Your task to perform on an android device: toggle priority inbox in the gmail app Image 0: 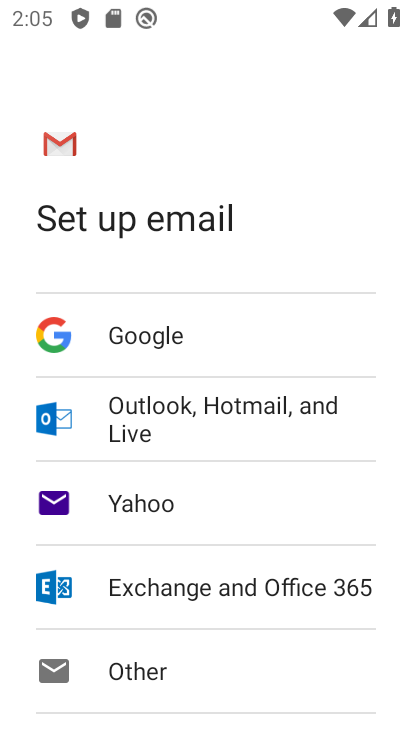
Step 0: press back button
Your task to perform on an android device: toggle priority inbox in the gmail app Image 1: 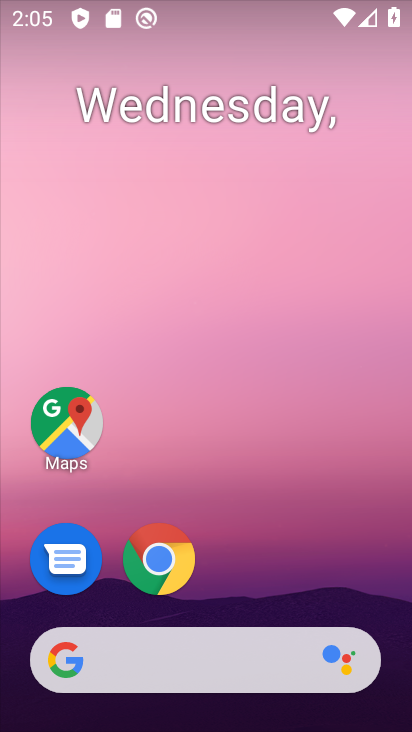
Step 1: drag from (259, 542) to (259, 82)
Your task to perform on an android device: toggle priority inbox in the gmail app Image 2: 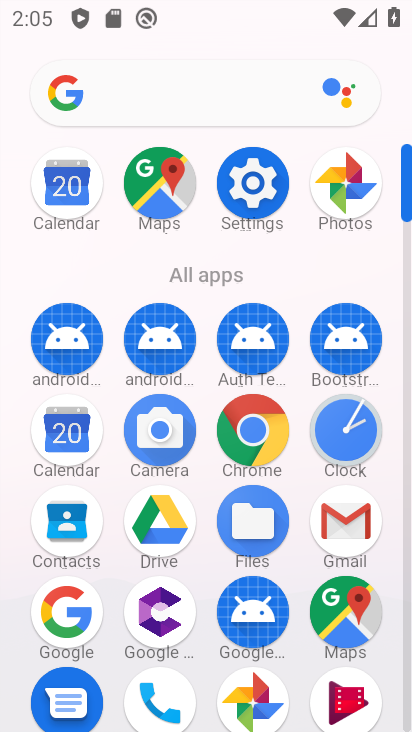
Step 2: click (332, 496)
Your task to perform on an android device: toggle priority inbox in the gmail app Image 3: 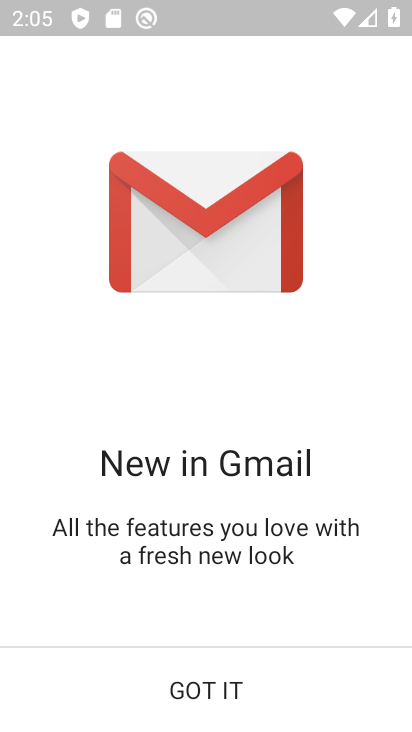
Step 3: click (200, 683)
Your task to perform on an android device: toggle priority inbox in the gmail app Image 4: 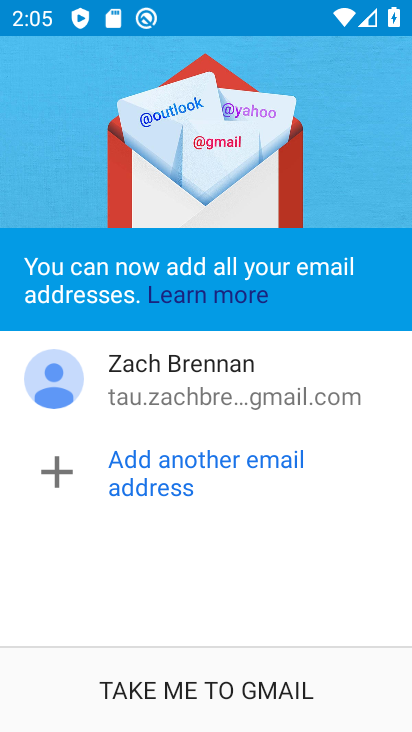
Step 4: click (192, 687)
Your task to perform on an android device: toggle priority inbox in the gmail app Image 5: 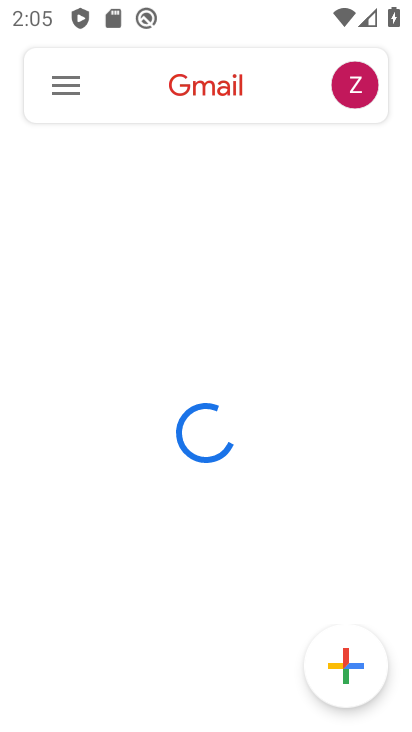
Step 5: click (64, 87)
Your task to perform on an android device: toggle priority inbox in the gmail app Image 6: 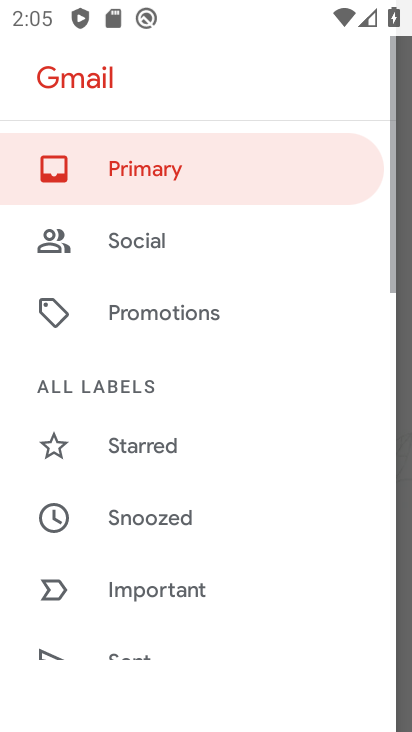
Step 6: drag from (142, 663) to (241, 104)
Your task to perform on an android device: toggle priority inbox in the gmail app Image 7: 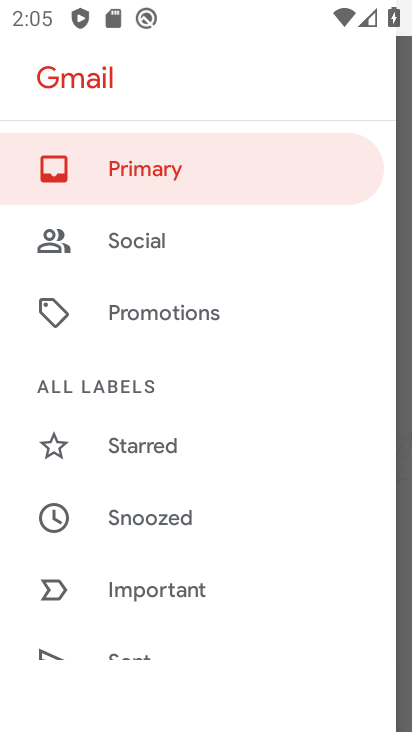
Step 7: drag from (214, 631) to (214, 39)
Your task to perform on an android device: toggle priority inbox in the gmail app Image 8: 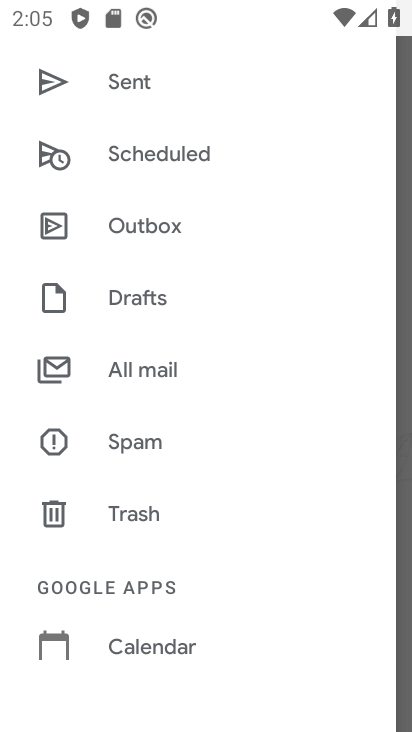
Step 8: drag from (151, 636) to (209, 52)
Your task to perform on an android device: toggle priority inbox in the gmail app Image 9: 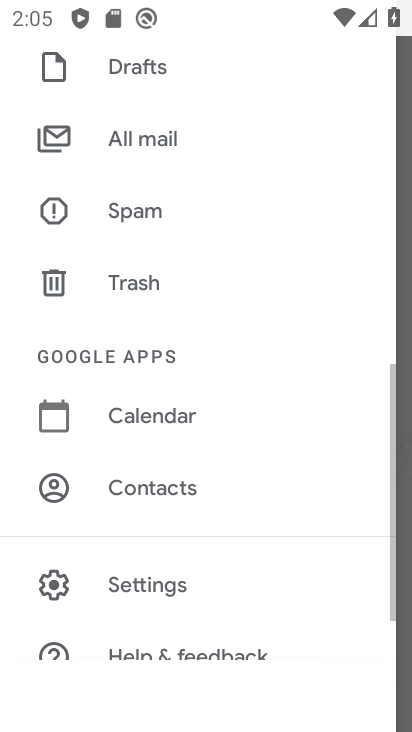
Step 9: click (167, 541)
Your task to perform on an android device: toggle priority inbox in the gmail app Image 10: 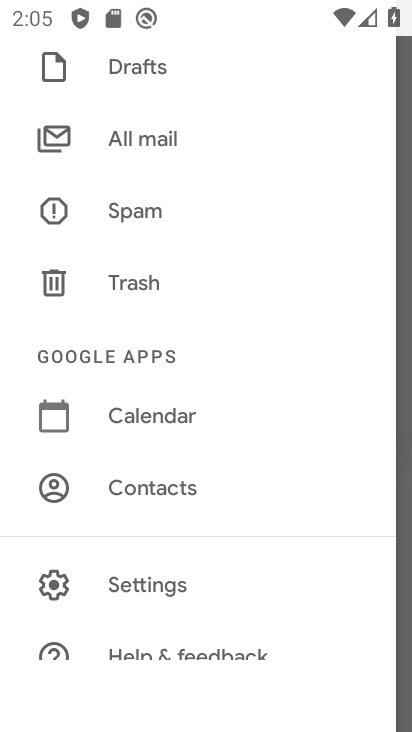
Step 10: click (128, 587)
Your task to perform on an android device: toggle priority inbox in the gmail app Image 11: 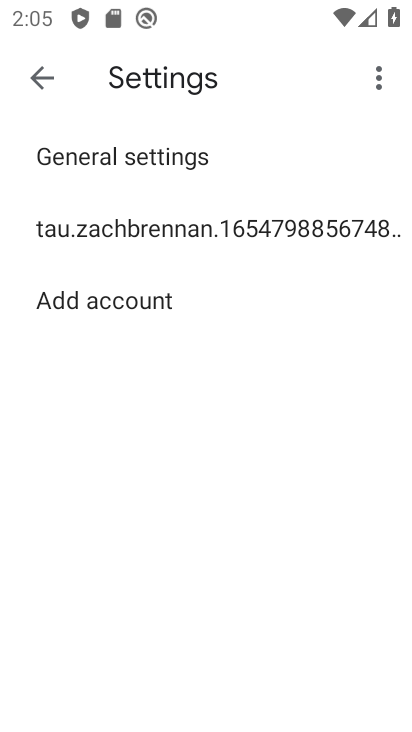
Step 11: click (156, 219)
Your task to perform on an android device: toggle priority inbox in the gmail app Image 12: 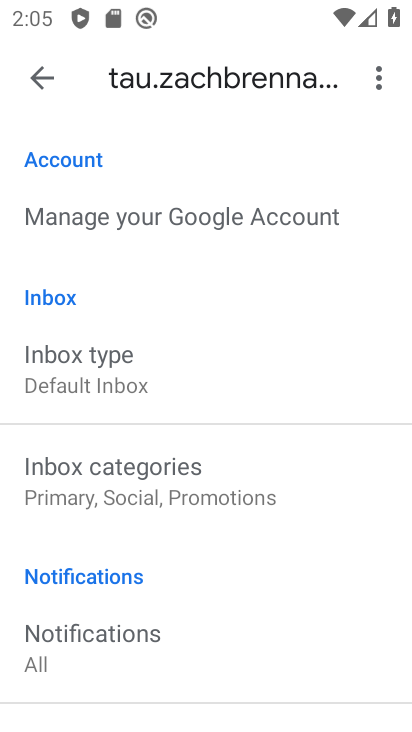
Step 12: click (118, 354)
Your task to perform on an android device: toggle priority inbox in the gmail app Image 13: 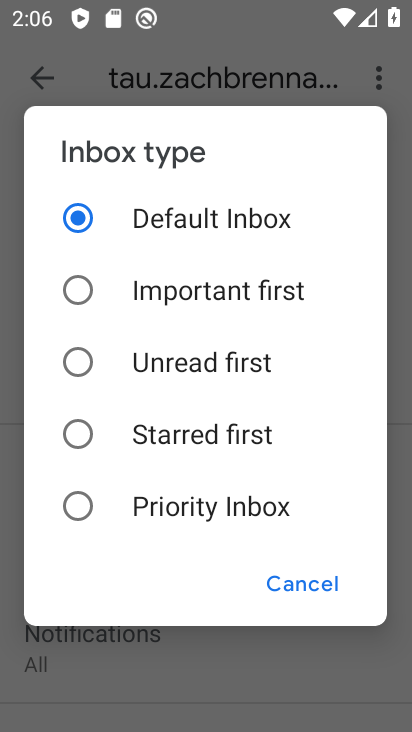
Step 13: click (79, 513)
Your task to perform on an android device: toggle priority inbox in the gmail app Image 14: 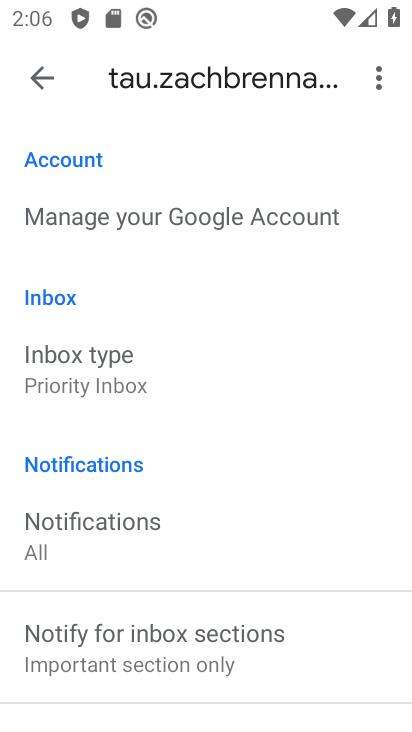
Step 14: task complete